Your task to perform on an android device: toggle sleep mode Image 0: 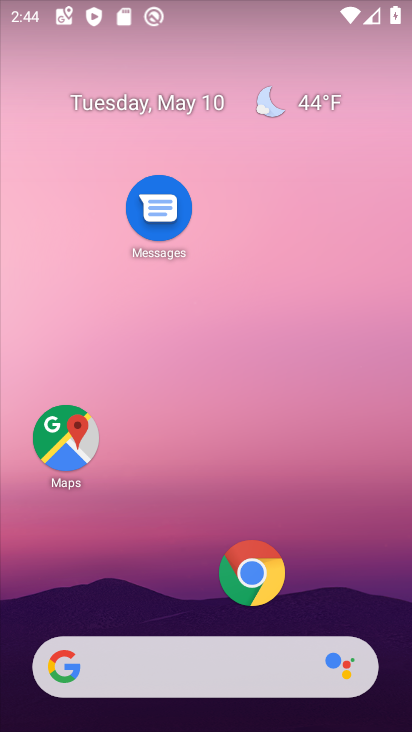
Step 0: drag from (202, 575) to (236, 163)
Your task to perform on an android device: toggle sleep mode Image 1: 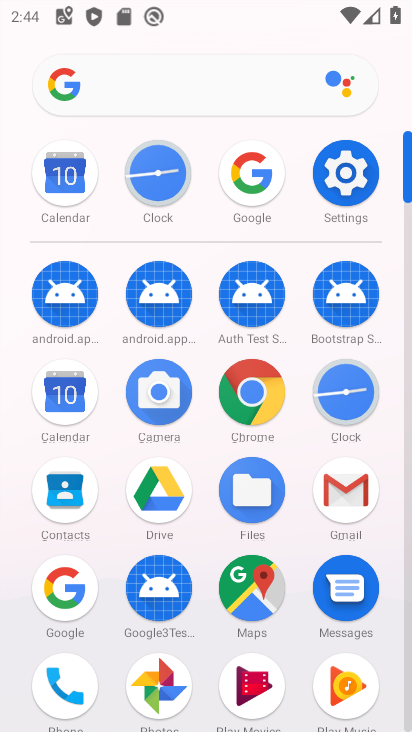
Step 1: click (349, 173)
Your task to perform on an android device: toggle sleep mode Image 2: 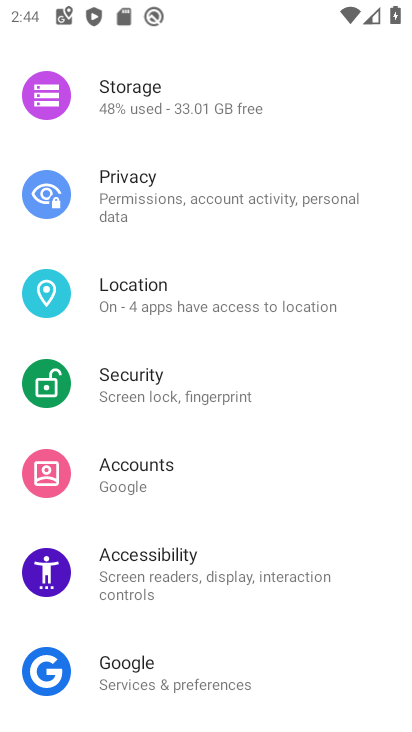
Step 2: drag from (184, 258) to (188, 462)
Your task to perform on an android device: toggle sleep mode Image 3: 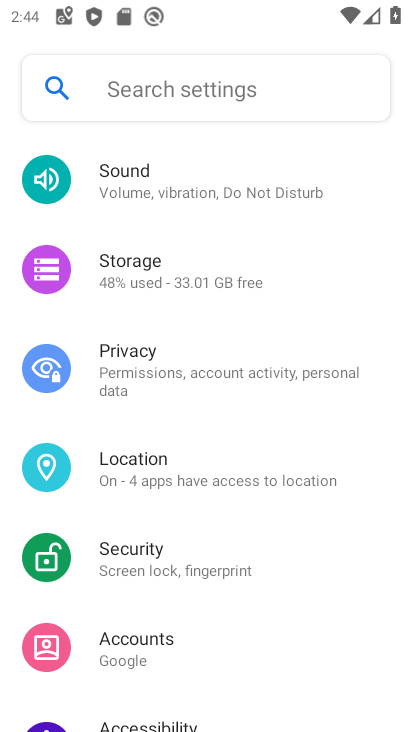
Step 3: drag from (183, 369) to (210, 526)
Your task to perform on an android device: toggle sleep mode Image 4: 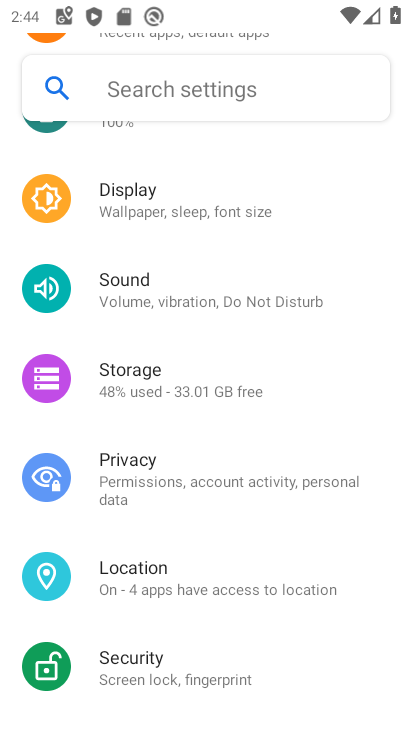
Step 4: click (195, 213)
Your task to perform on an android device: toggle sleep mode Image 5: 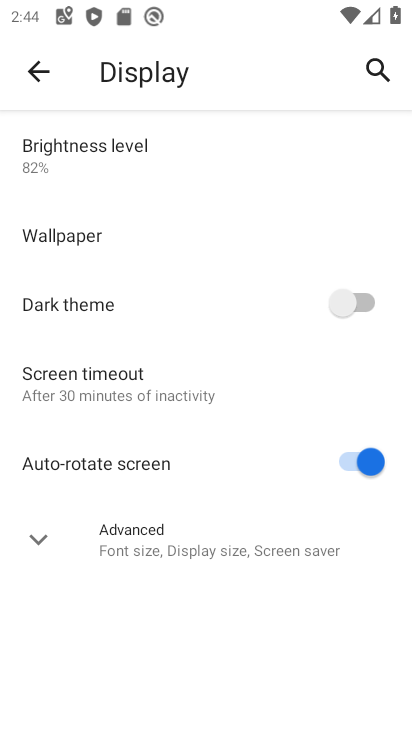
Step 5: click (160, 390)
Your task to perform on an android device: toggle sleep mode Image 6: 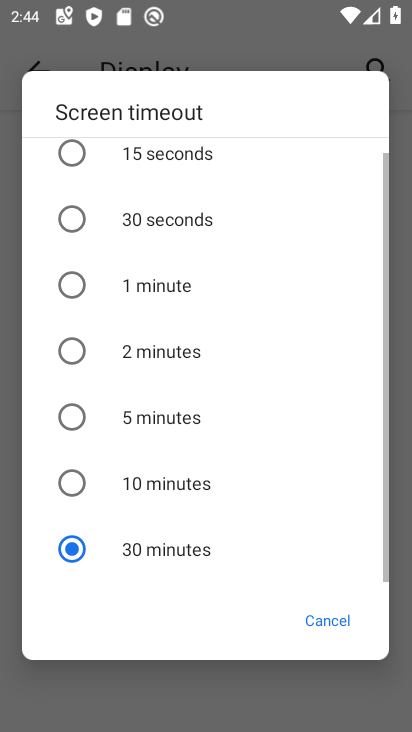
Step 6: click (162, 352)
Your task to perform on an android device: toggle sleep mode Image 7: 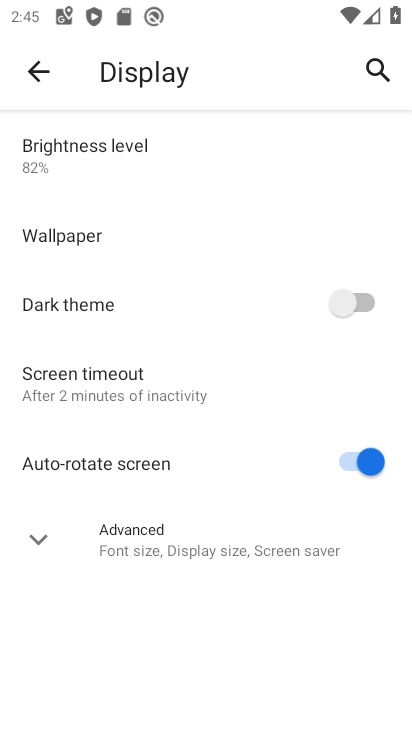
Step 7: task complete